Your task to perform on an android device: turn on priority inbox in the gmail app Image 0: 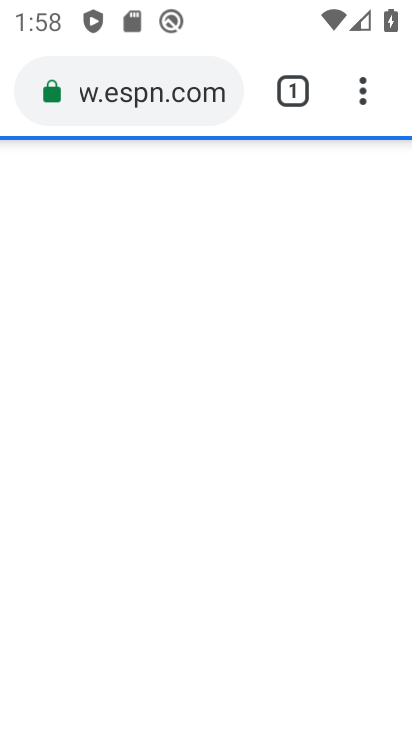
Step 0: press home button
Your task to perform on an android device: turn on priority inbox in the gmail app Image 1: 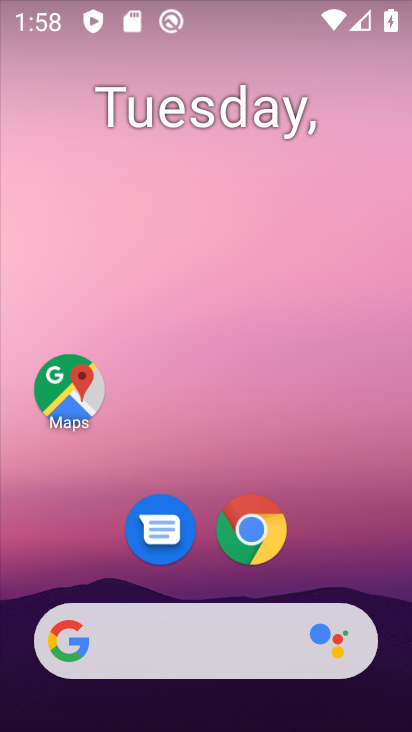
Step 1: drag from (373, 603) to (191, 54)
Your task to perform on an android device: turn on priority inbox in the gmail app Image 2: 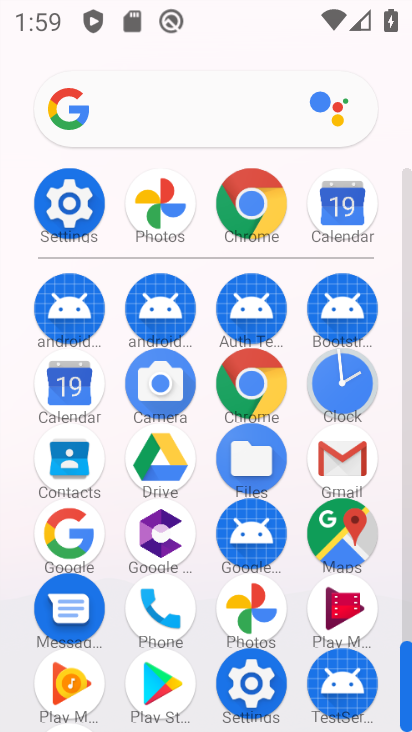
Step 2: click (336, 470)
Your task to perform on an android device: turn on priority inbox in the gmail app Image 3: 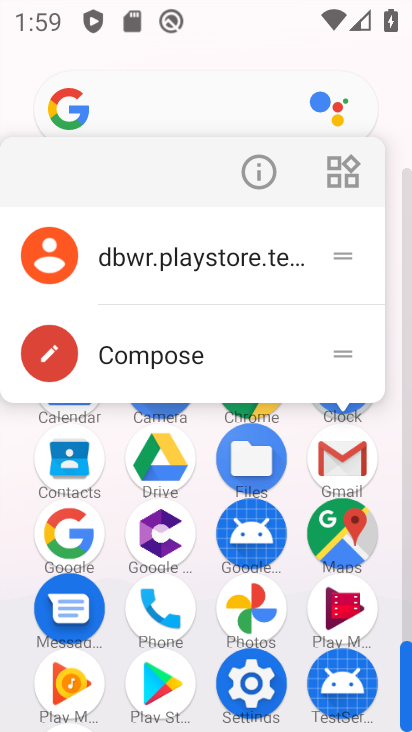
Step 3: click (342, 464)
Your task to perform on an android device: turn on priority inbox in the gmail app Image 4: 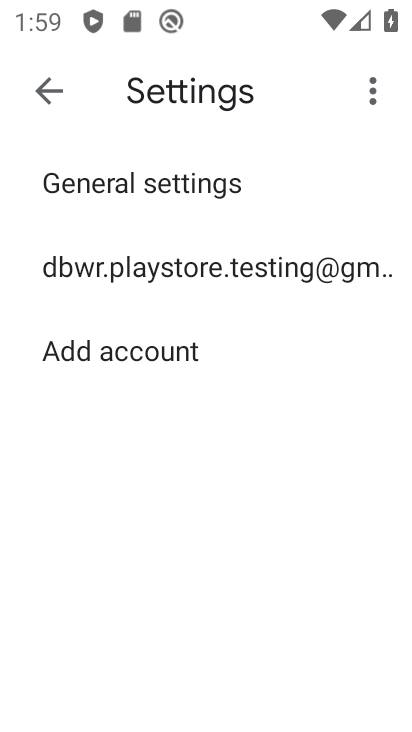
Step 4: click (313, 271)
Your task to perform on an android device: turn on priority inbox in the gmail app Image 5: 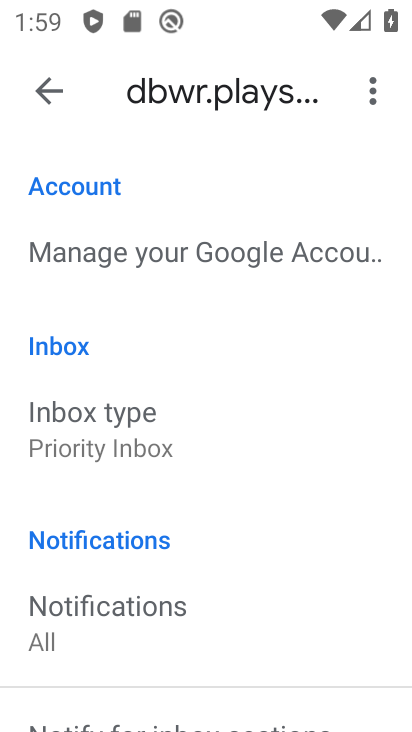
Step 5: drag from (155, 642) to (247, 127)
Your task to perform on an android device: turn on priority inbox in the gmail app Image 6: 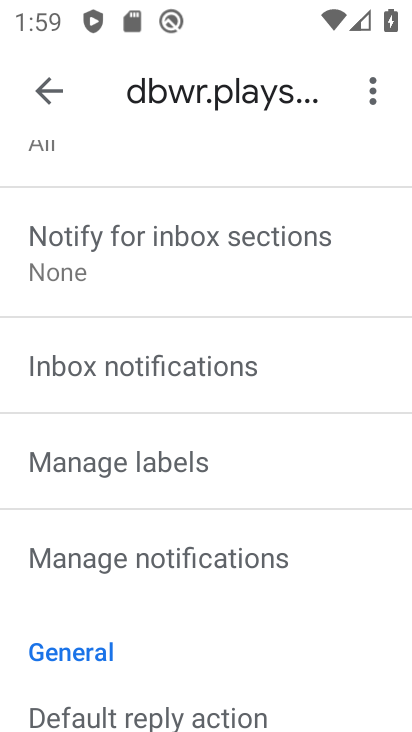
Step 6: drag from (171, 643) to (221, 126)
Your task to perform on an android device: turn on priority inbox in the gmail app Image 7: 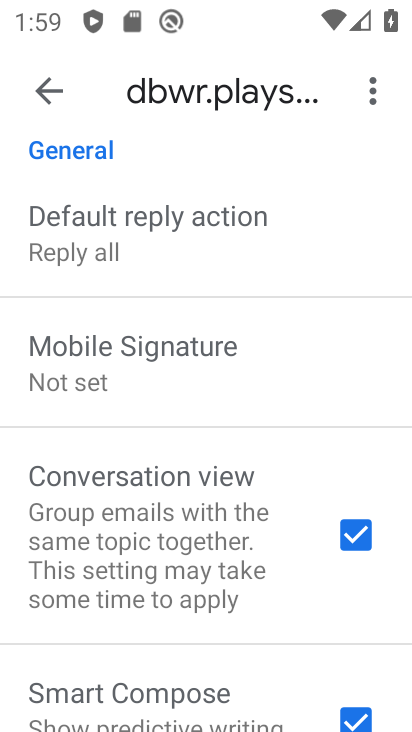
Step 7: drag from (156, 596) to (193, 312)
Your task to perform on an android device: turn on priority inbox in the gmail app Image 8: 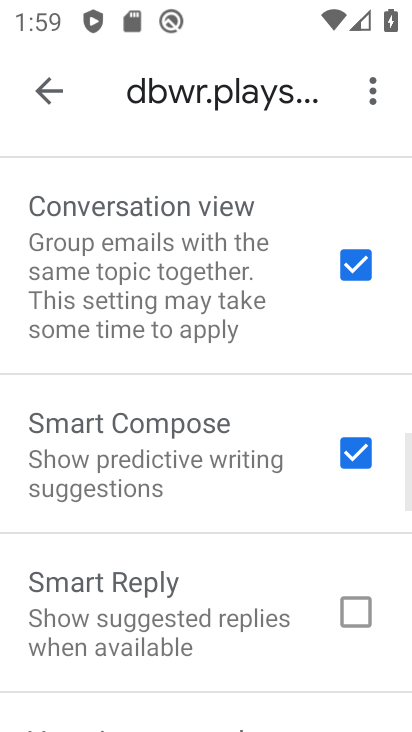
Step 8: drag from (223, 193) to (264, 610)
Your task to perform on an android device: turn on priority inbox in the gmail app Image 9: 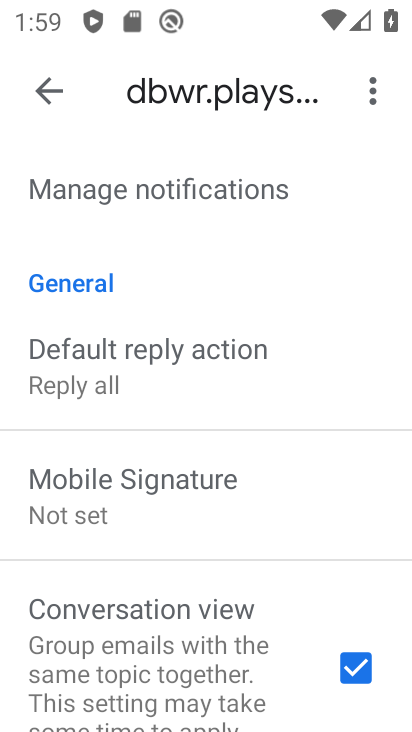
Step 9: drag from (246, 209) to (219, 723)
Your task to perform on an android device: turn on priority inbox in the gmail app Image 10: 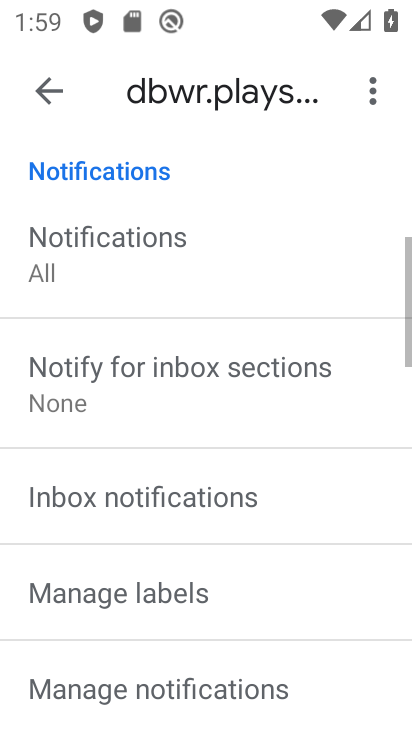
Step 10: drag from (244, 247) to (174, 725)
Your task to perform on an android device: turn on priority inbox in the gmail app Image 11: 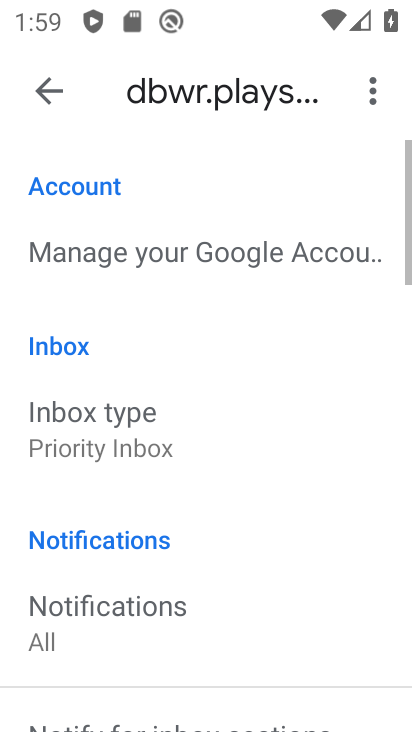
Step 11: drag from (202, 327) to (186, 700)
Your task to perform on an android device: turn on priority inbox in the gmail app Image 12: 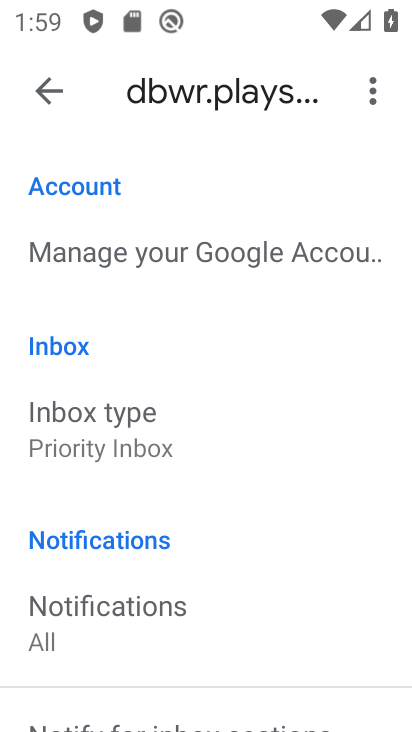
Step 12: click (194, 447)
Your task to perform on an android device: turn on priority inbox in the gmail app Image 13: 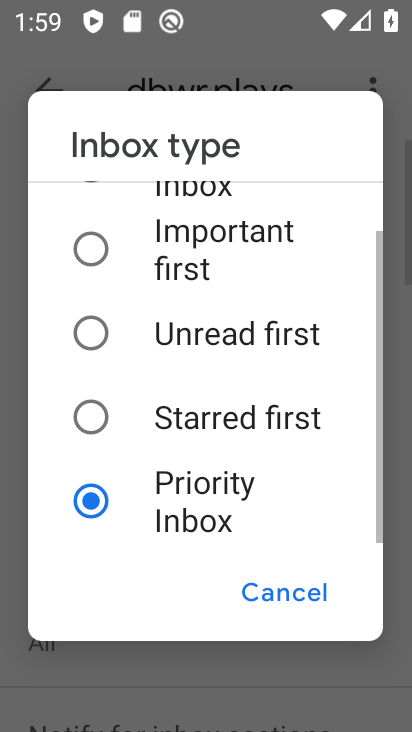
Step 13: click (213, 514)
Your task to perform on an android device: turn on priority inbox in the gmail app Image 14: 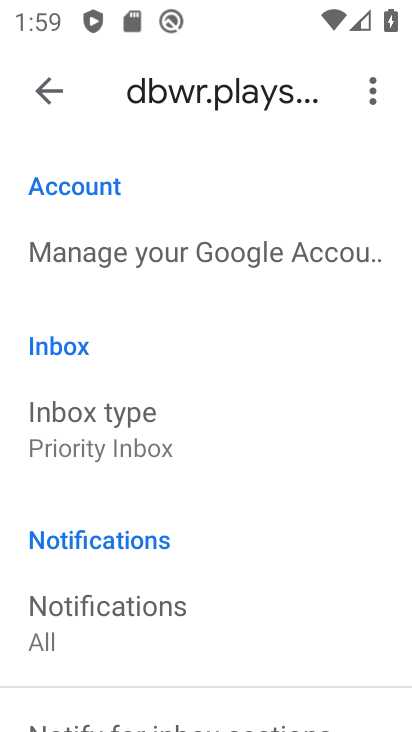
Step 14: task complete